Your task to perform on an android device: turn on airplane mode Image 0: 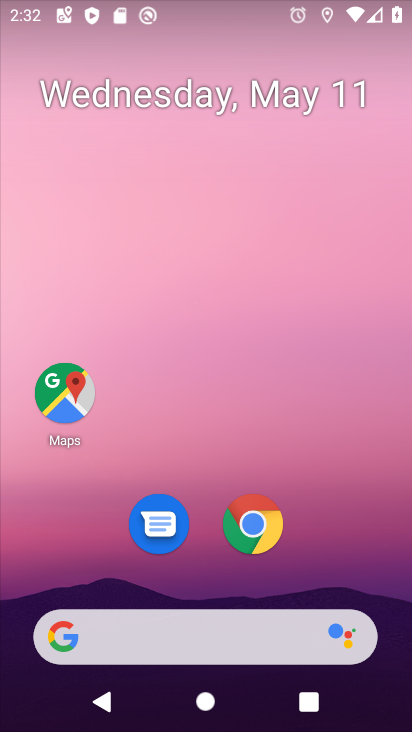
Step 0: drag from (313, 537) to (295, 10)
Your task to perform on an android device: turn on airplane mode Image 1: 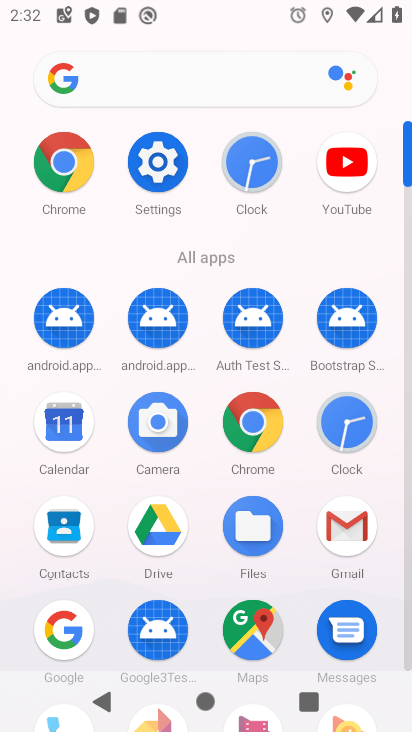
Step 1: click (167, 158)
Your task to perform on an android device: turn on airplane mode Image 2: 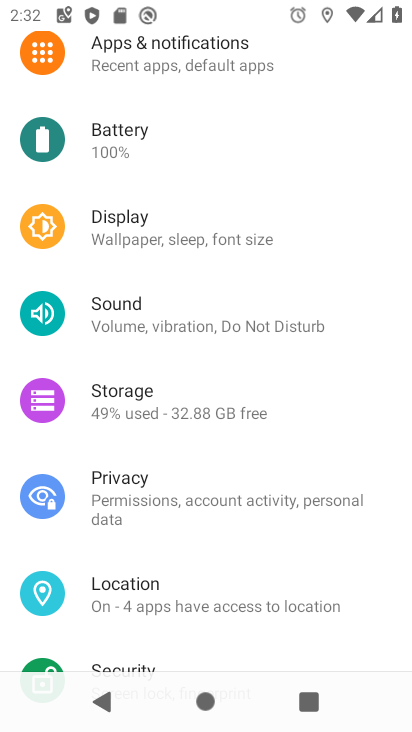
Step 2: drag from (194, 210) to (210, 579)
Your task to perform on an android device: turn on airplane mode Image 3: 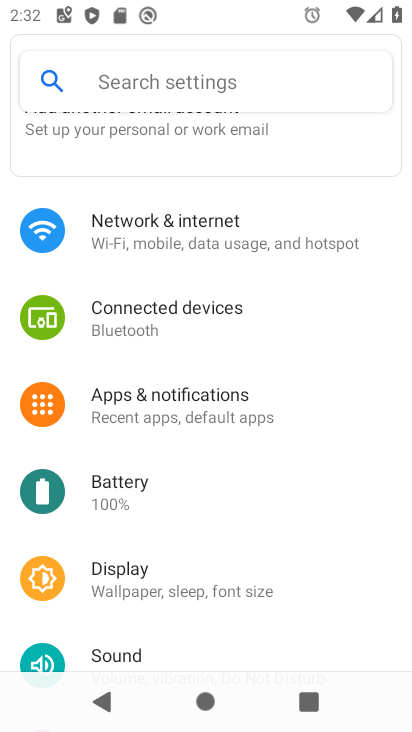
Step 3: click (232, 231)
Your task to perform on an android device: turn on airplane mode Image 4: 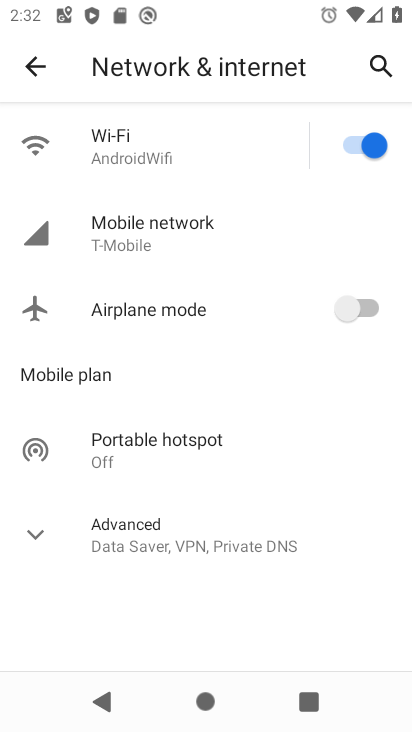
Step 4: click (330, 309)
Your task to perform on an android device: turn on airplane mode Image 5: 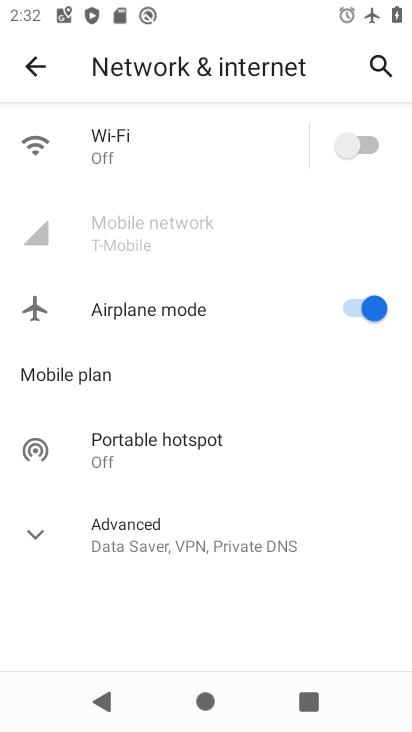
Step 5: task complete